Your task to perform on an android device: turn notification dots on Image 0: 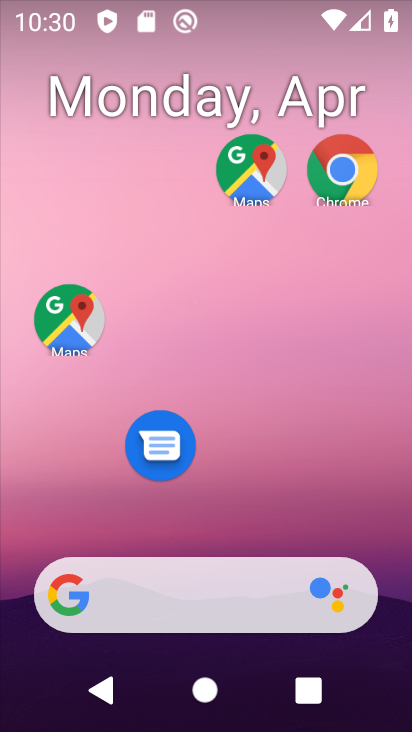
Step 0: drag from (268, 517) to (312, 9)
Your task to perform on an android device: turn notification dots on Image 1: 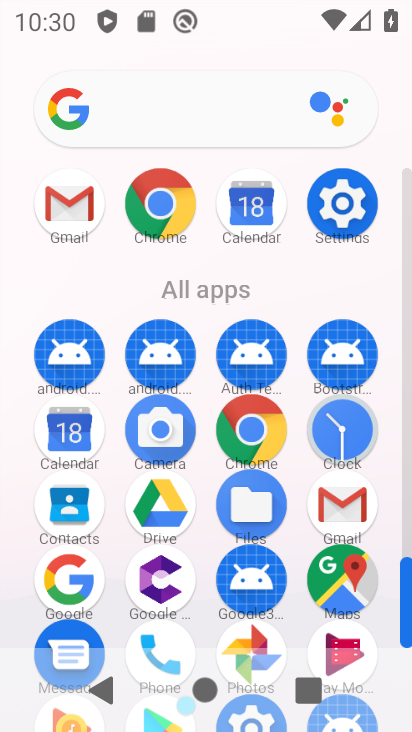
Step 1: click (355, 203)
Your task to perform on an android device: turn notification dots on Image 2: 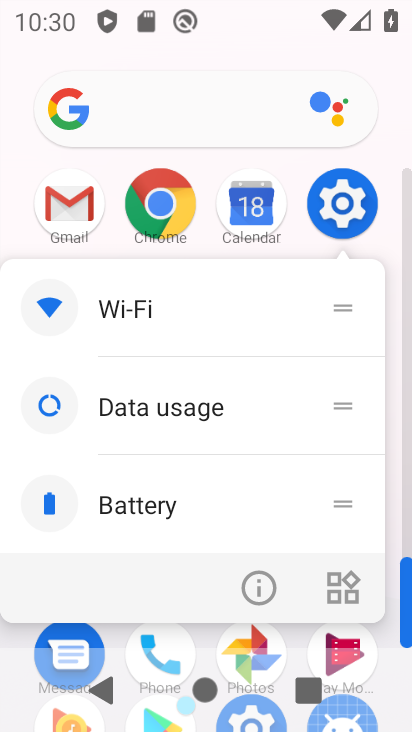
Step 2: click (342, 213)
Your task to perform on an android device: turn notification dots on Image 3: 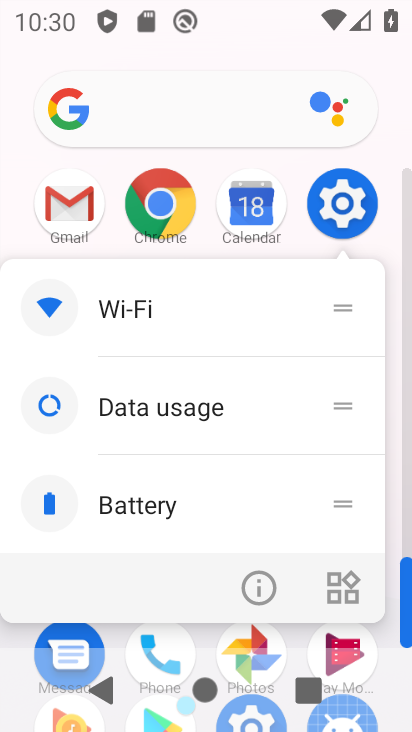
Step 3: click (344, 214)
Your task to perform on an android device: turn notification dots on Image 4: 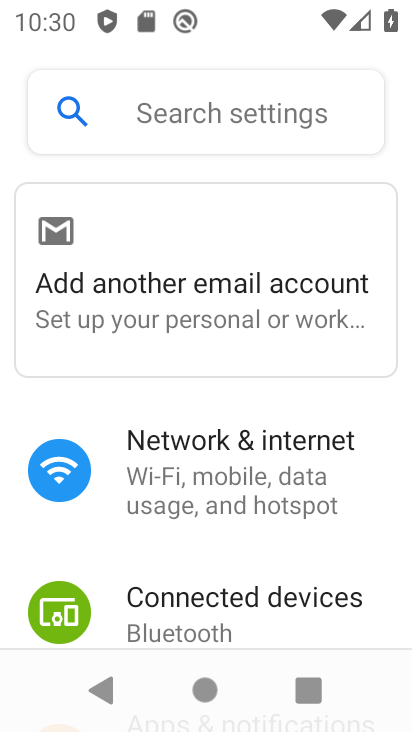
Step 4: drag from (325, 556) to (308, 161)
Your task to perform on an android device: turn notification dots on Image 5: 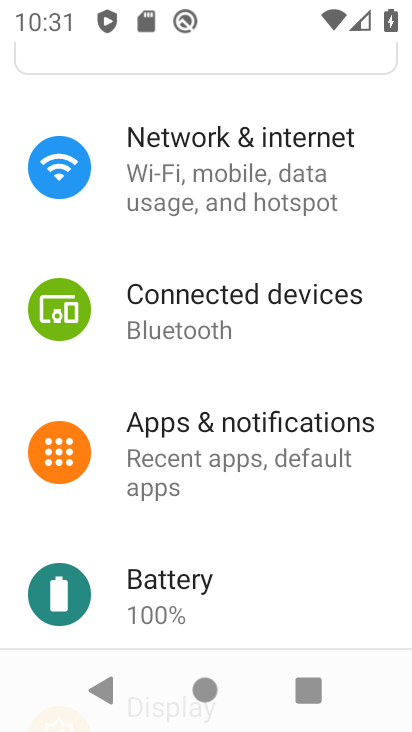
Step 5: click (301, 428)
Your task to perform on an android device: turn notification dots on Image 6: 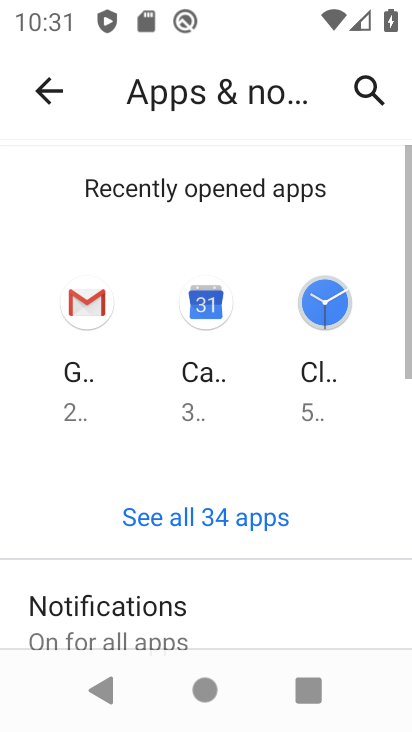
Step 6: drag from (285, 493) to (293, 220)
Your task to perform on an android device: turn notification dots on Image 7: 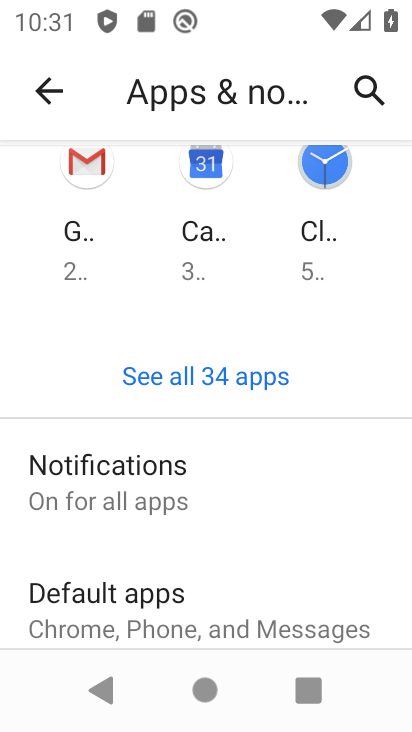
Step 7: drag from (272, 539) to (331, 156)
Your task to perform on an android device: turn notification dots on Image 8: 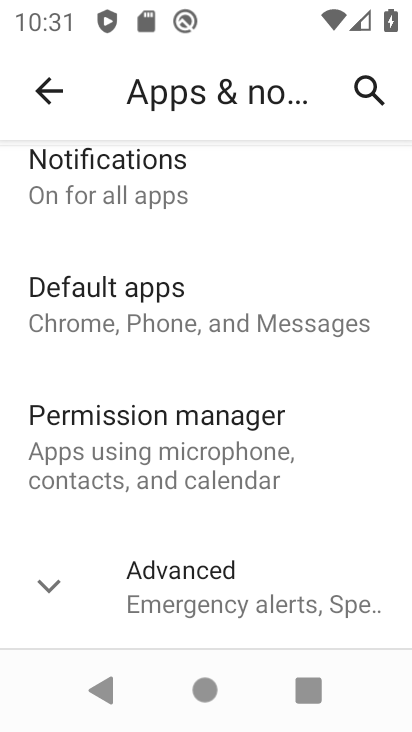
Step 8: click (125, 170)
Your task to perform on an android device: turn notification dots on Image 9: 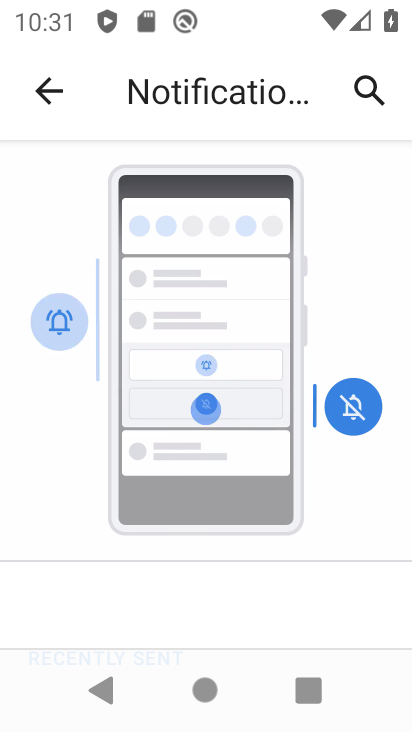
Step 9: drag from (278, 574) to (301, 96)
Your task to perform on an android device: turn notification dots on Image 10: 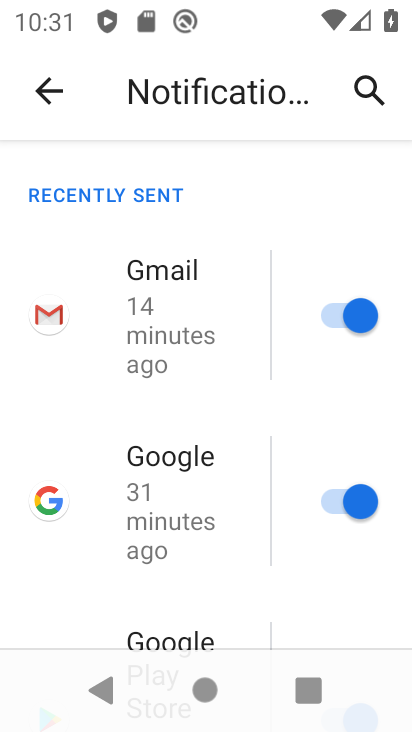
Step 10: drag from (241, 525) to (267, 100)
Your task to perform on an android device: turn notification dots on Image 11: 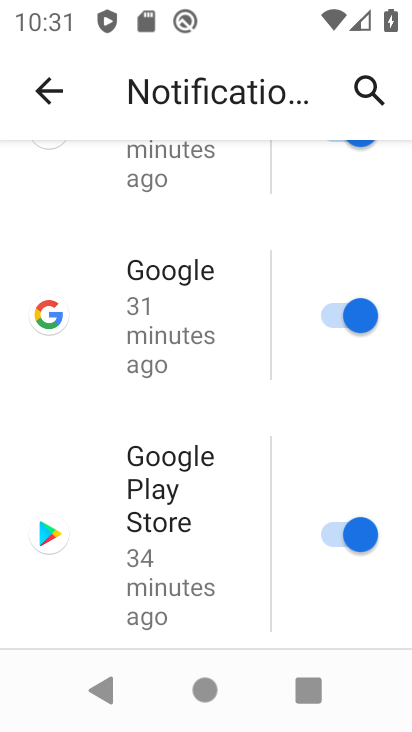
Step 11: drag from (228, 592) to (282, 49)
Your task to perform on an android device: turn notification dots on Image 12: 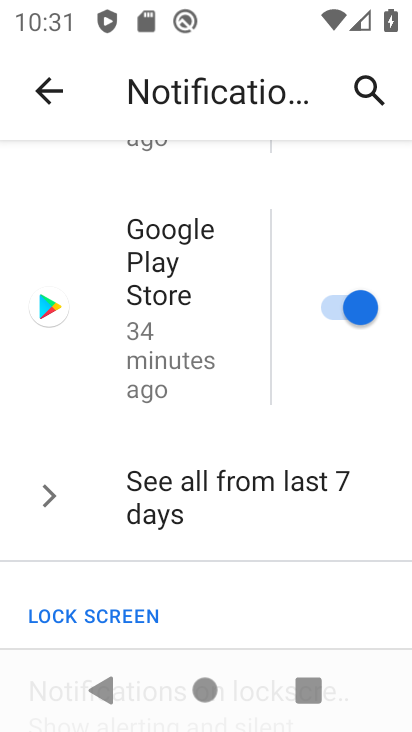
Step 12: drag from (221, 571) to (300, 57)
Your task to perform on an android device: turn notification dots on Image 13: 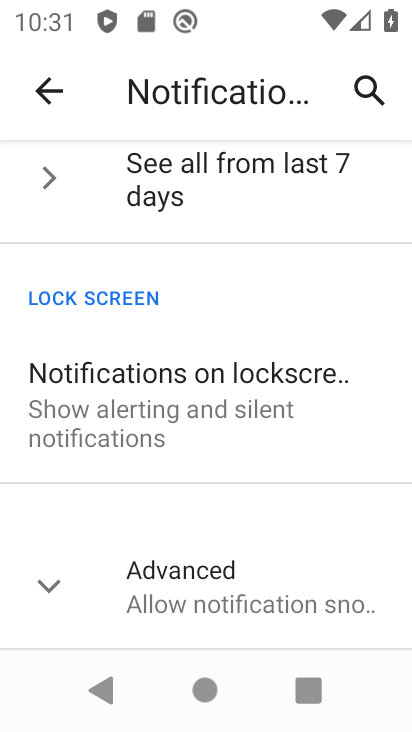
Step 13: click (219, 588)
Your task to perform on an android device: turn notification dots on Image 14: 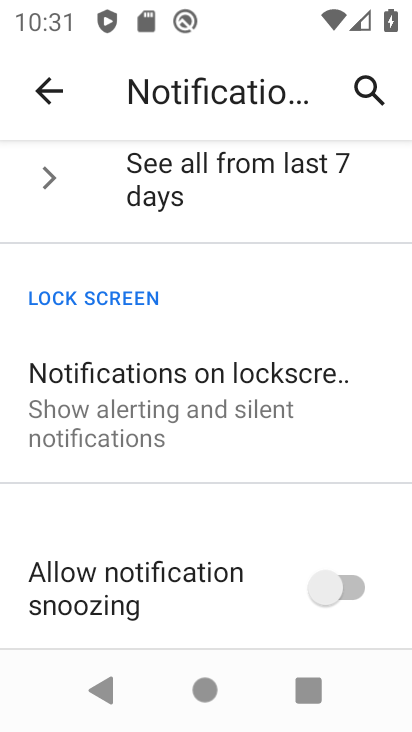
Step 14: task complete